Your task to perform on an android device: Open Google Chrome Image 0: 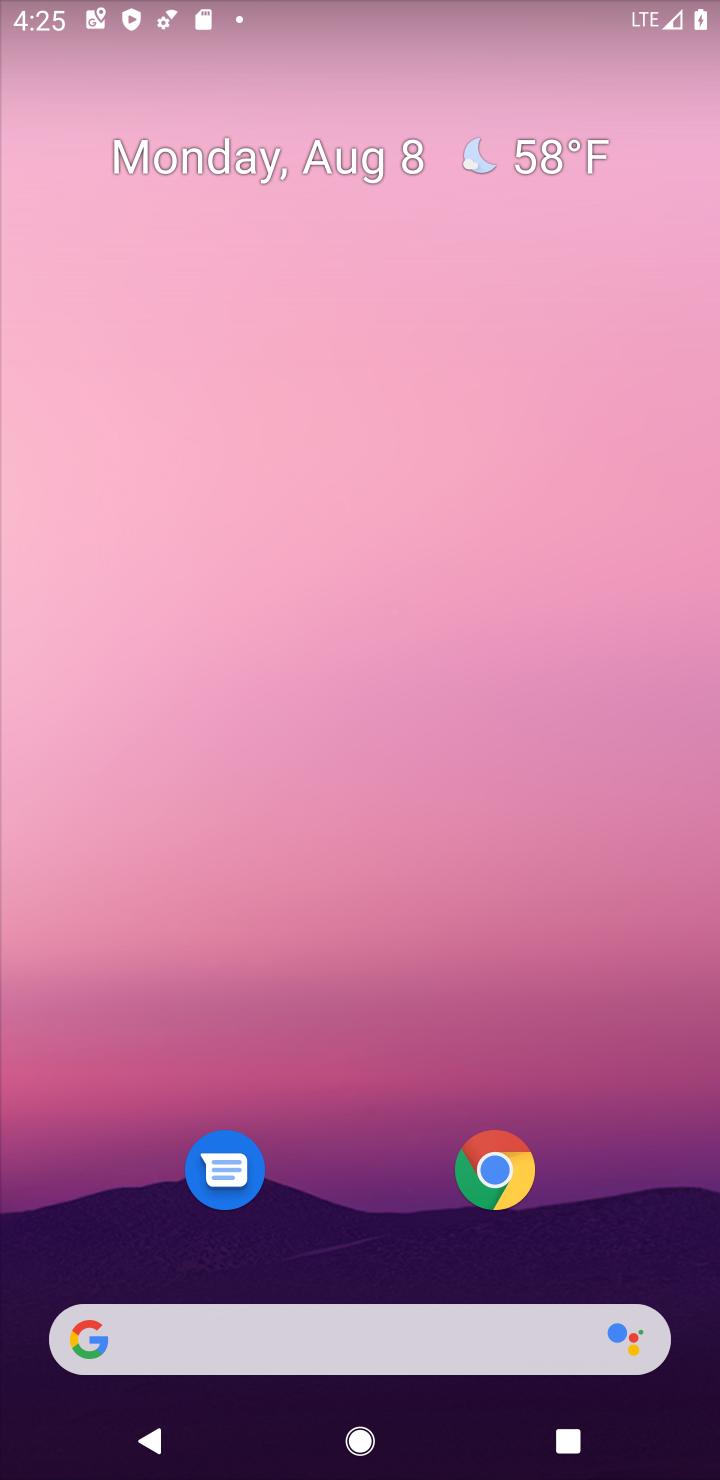
Step 0: click (479, 1179)
Your task to perform on an android device: Open Google Chrome Image 1: 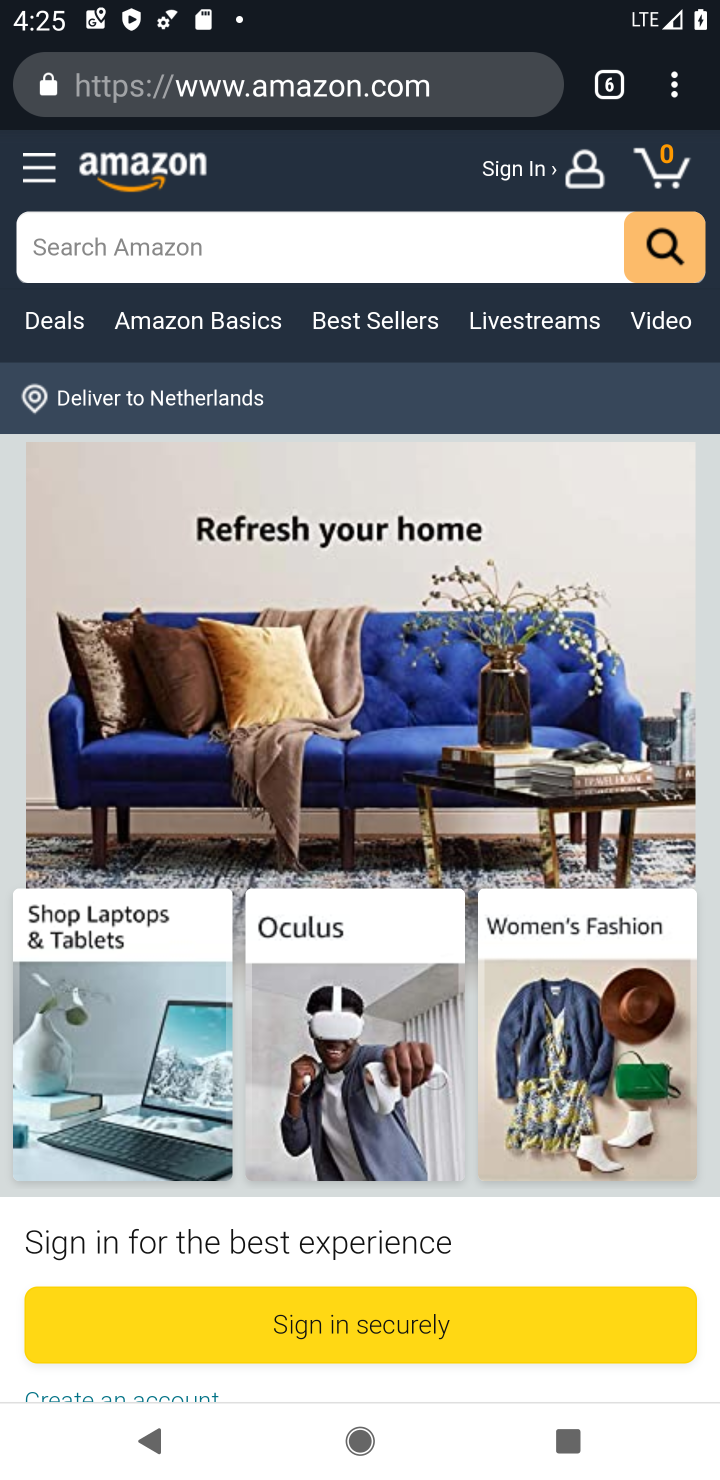
Step 1: task complete